Your task to perform on an android device: remove spam from my inbox in the gmail app Image 0: 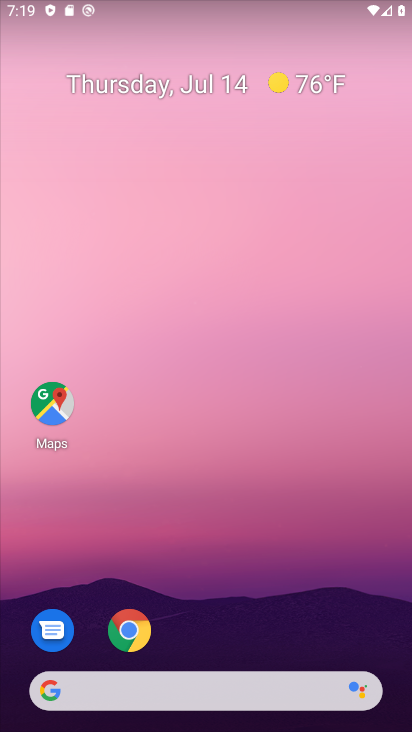
Step 0: drag from (169, 488) to (204, 322)
Your task to perform on an android device: remove spam from my inbox in the gmail app Image 1: 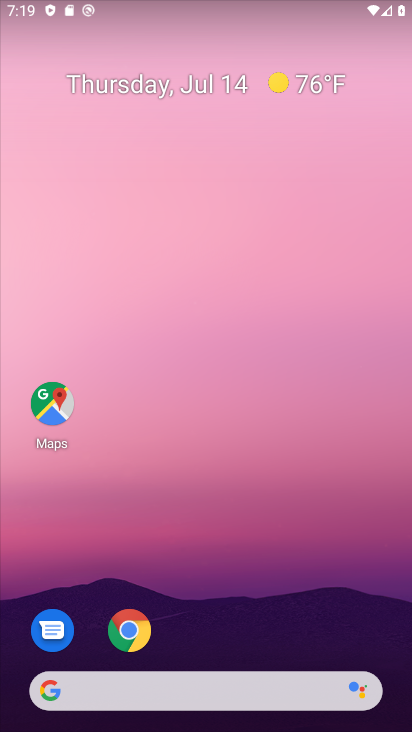
Step 1: drag from (238, 671) to (0, 120)
Your task to perform on an android device: remove spam from my inbox in the gmail app Image 2: 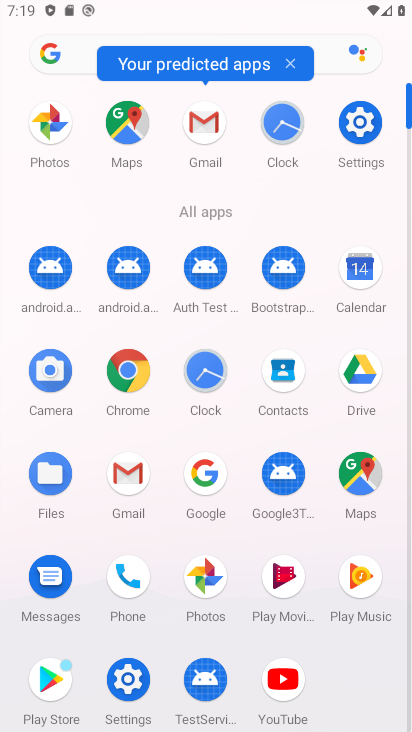
Step 2: click (199, 124)
Your task to perform on an android device: remove spam from my inbox in the gmail app Image 3: 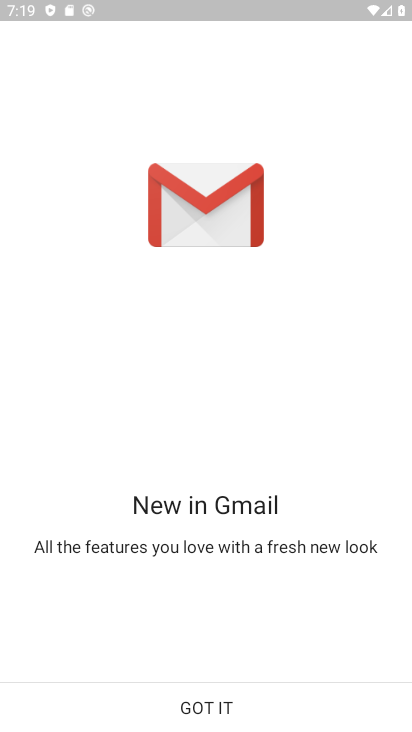
Step 3: click (194, 698)
Your task to perform on an android device: remove spam from my inbox in the gmail app Image 4: 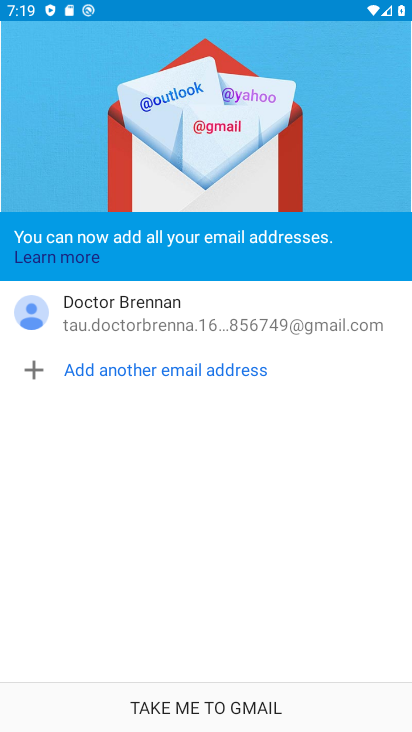
Step 4: click (194, 698)
Your task to perform on an android device: remove spam from my inbox in the gmail app Image 5: 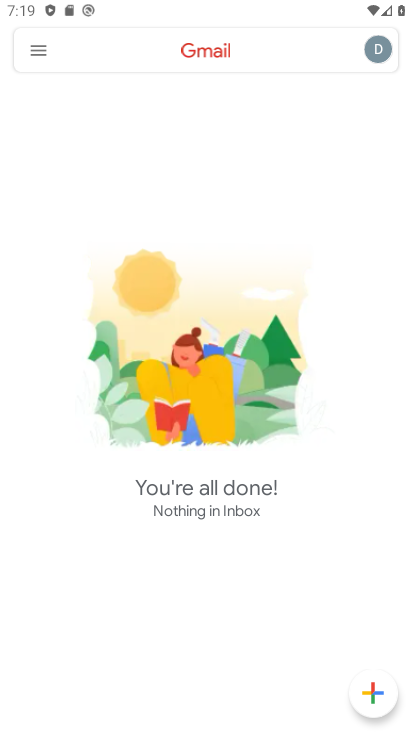
Step 5: click (43, 46)
Your task to perform on an android device: remove spam from my inbox in the gmail app Image 6: 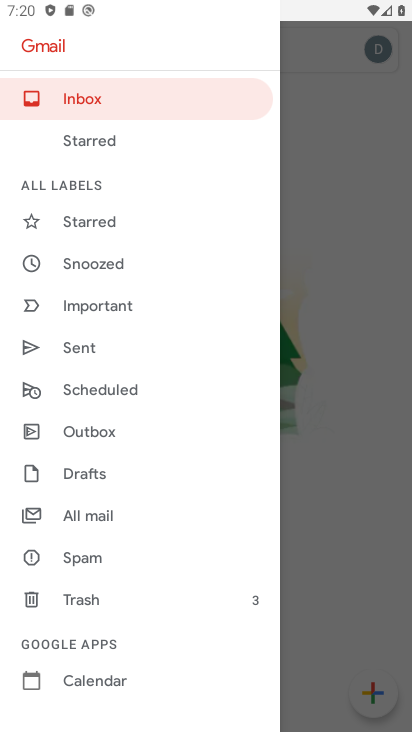
Step 6: click (101, 560)
Your task to perform on an android device: remove spam from my inbox in the gmail app Image 7: 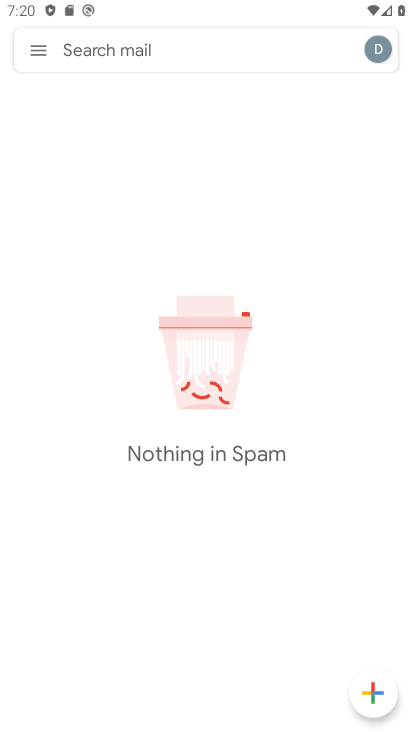
Step 7: task complete